Your task to perform on an android device: Open Youtube and go to the subscriptions tab Image 0: 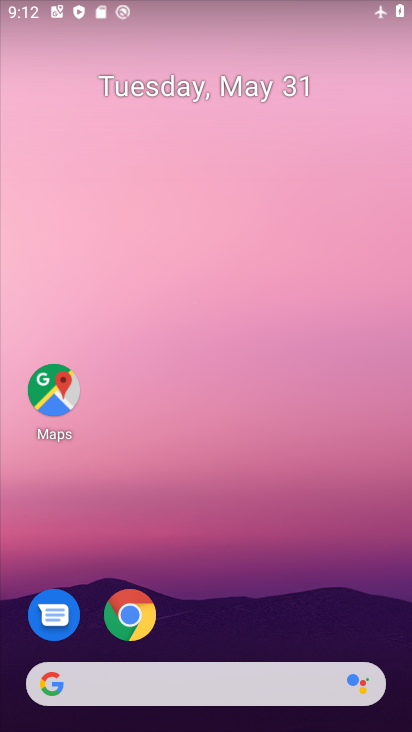
Step 0: drag from (384, 657) to (263, 12)
Your task to perform on an android device: Open Youtube and go to the subscriptions tab Image 1: 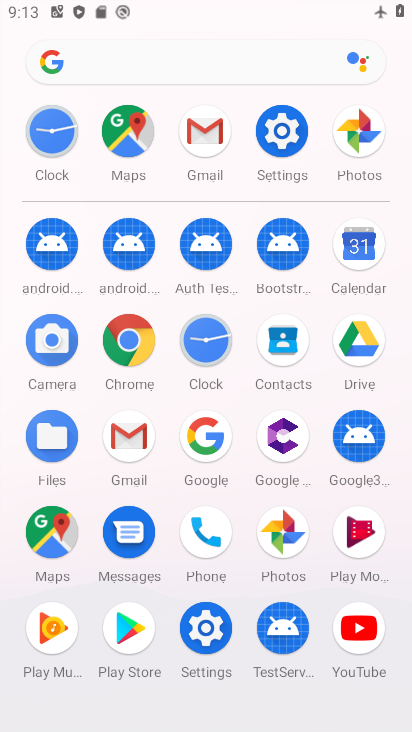
Step 1: click (360, 627)
Your task to perform on an android device: Open Youtube and go to the subscriptions tab Image 2: 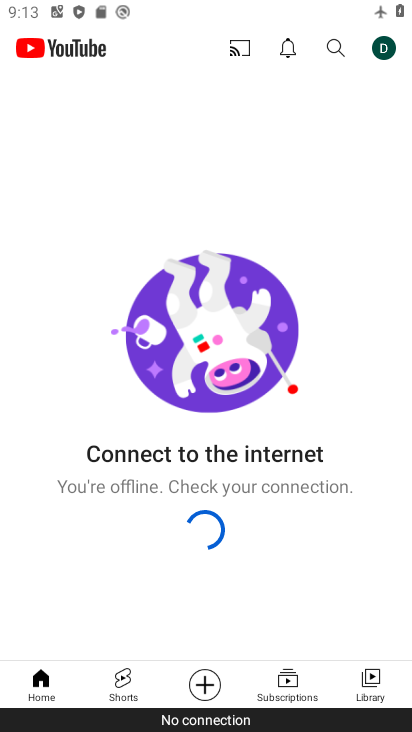
Step 2: click (282, 682)
Your task to perform on an android device: Open Youtube and go to the subscriptions tab Image 3: 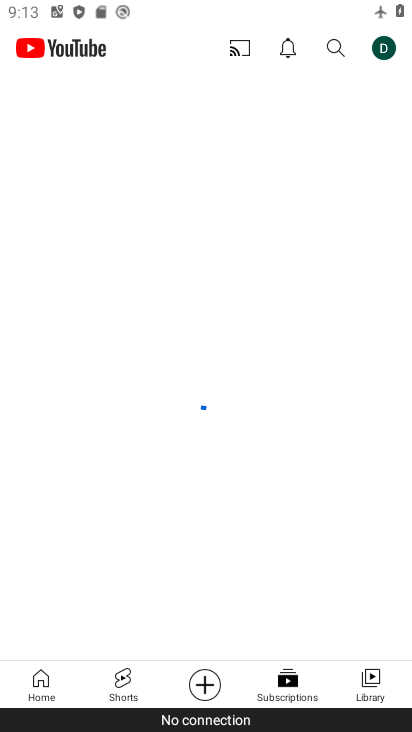
Step 3: task complete